Your task to perform on an android device: Open Chrome and go to the settings page Image 0: 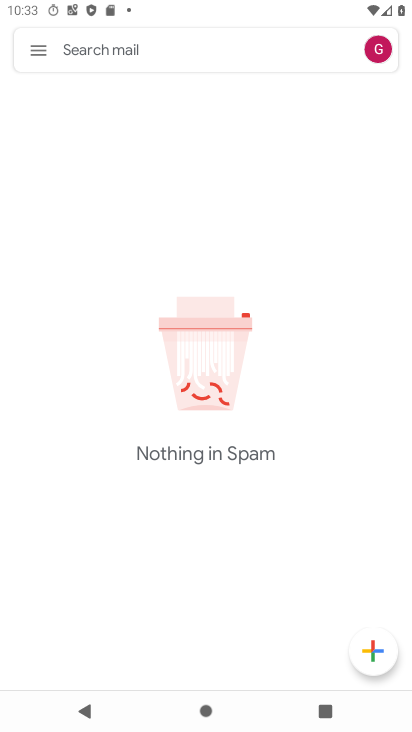
Step 0: press home button
Your task to perform on an android device: Open Chrome and go to the settings page Image 1: 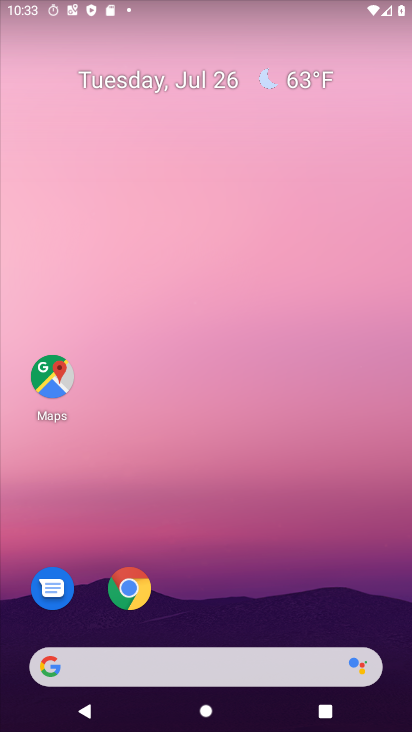
Step 1: click (120, 585)
Your task to perform on an android device: Open Chrome and go to the settings page Image 2: 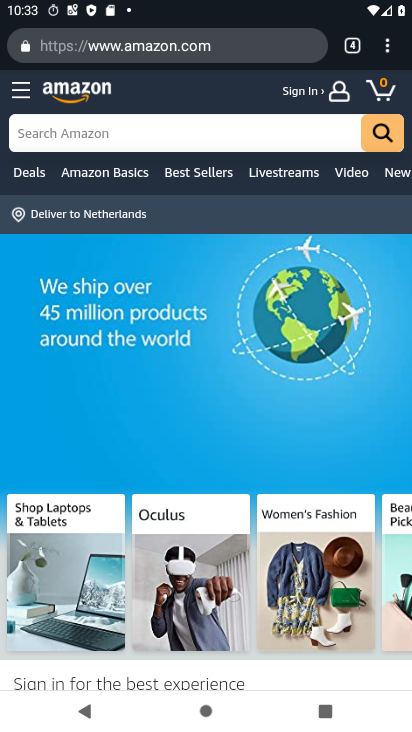
Step 2: click (393, 46)
Your task to perform on an android device: Open Chrome and go to the settings page Image 3: 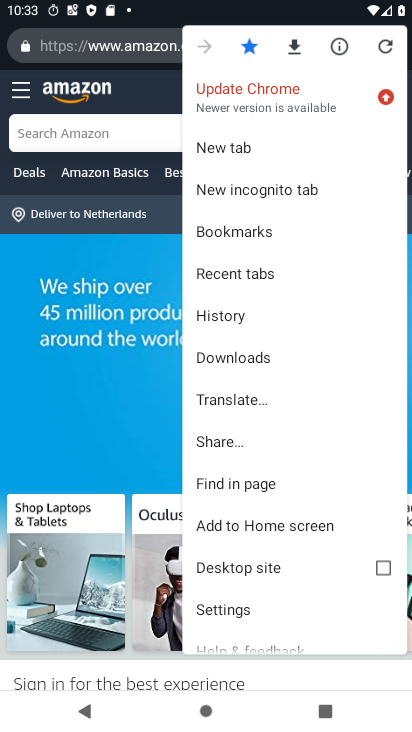
Step 3: click (216, 603)
Your task to perform on an android device: Open Chrome and go to the settings page Image 4: 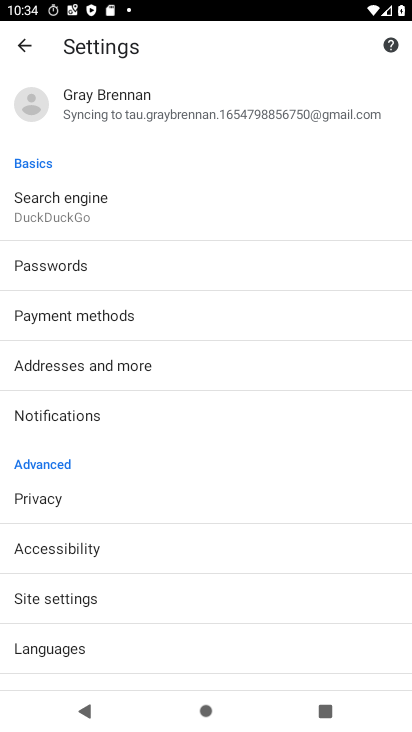
Step 4: task complete